Your task to perform on an android device: turn off javascript in the chrome app Image 0: 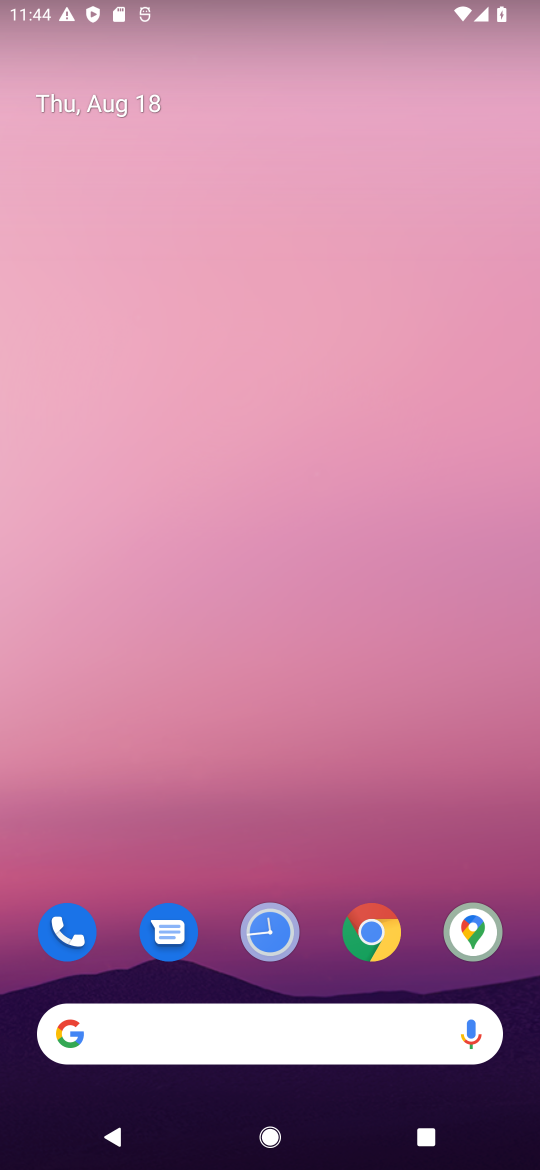
Step 0: click (361, 935)
Your task to perform on an android device: turn off javascript in the chrome app Image 1: 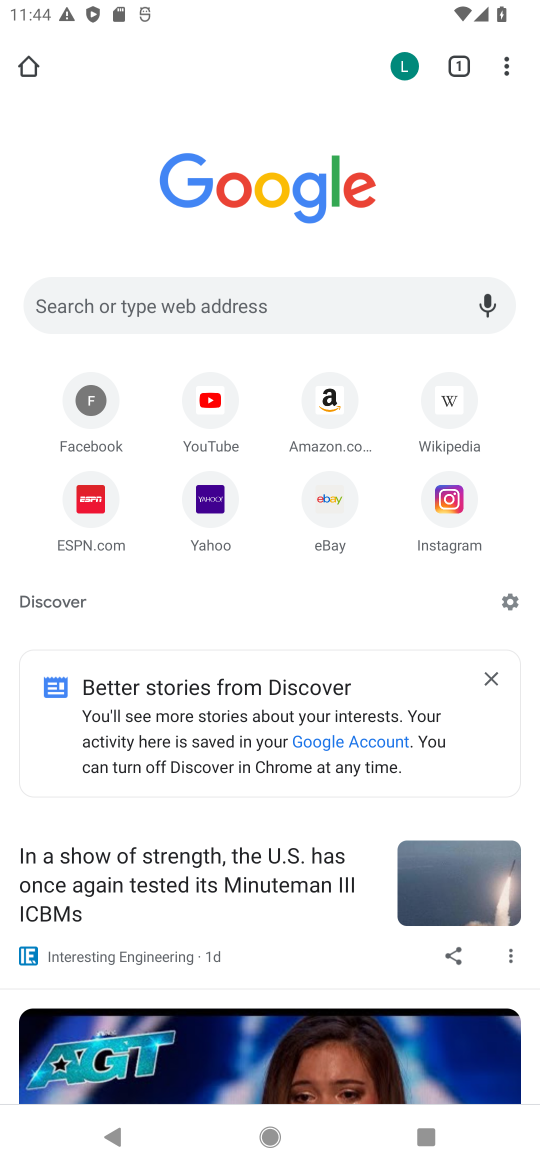
Step 1: click (513, 57)
Your task to perform on an android device: turn off javascript in the chrome app Image 2: 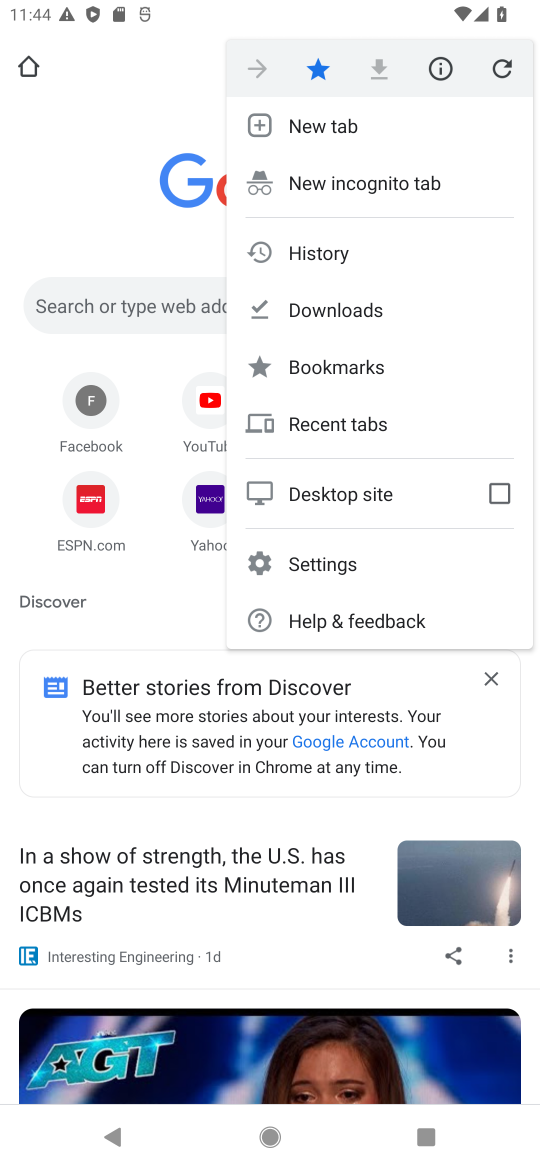
Step 2: click (297, 554)
Your task to perform on an android device: turn off javascript in the chrome app Image 3: 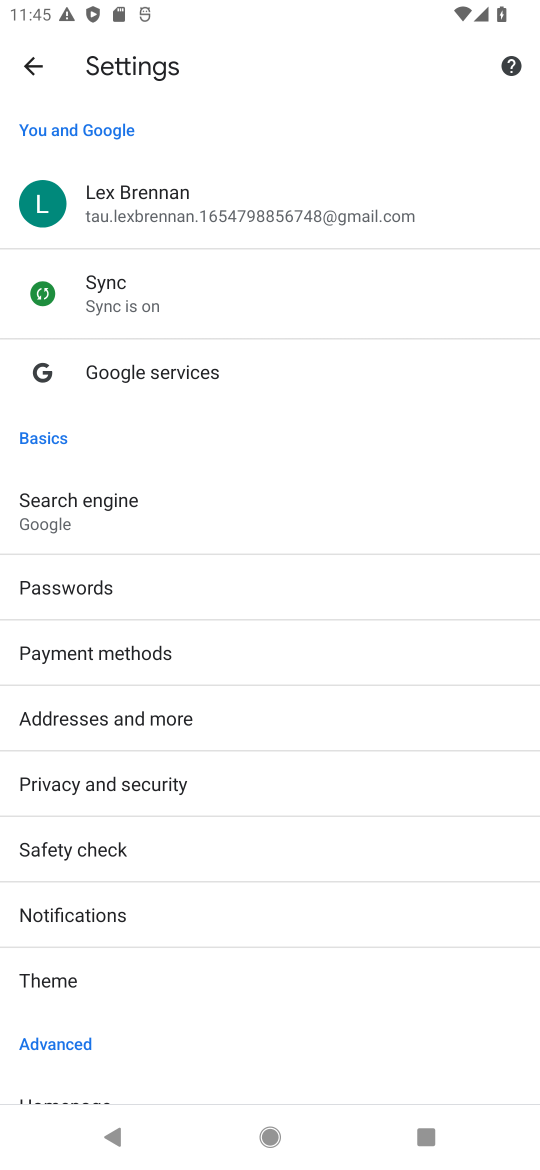
Step 3: drag from (193, 947) to (193, 685)
Your task to perform on an android device: turn off javascript in the chrome app Image 4: 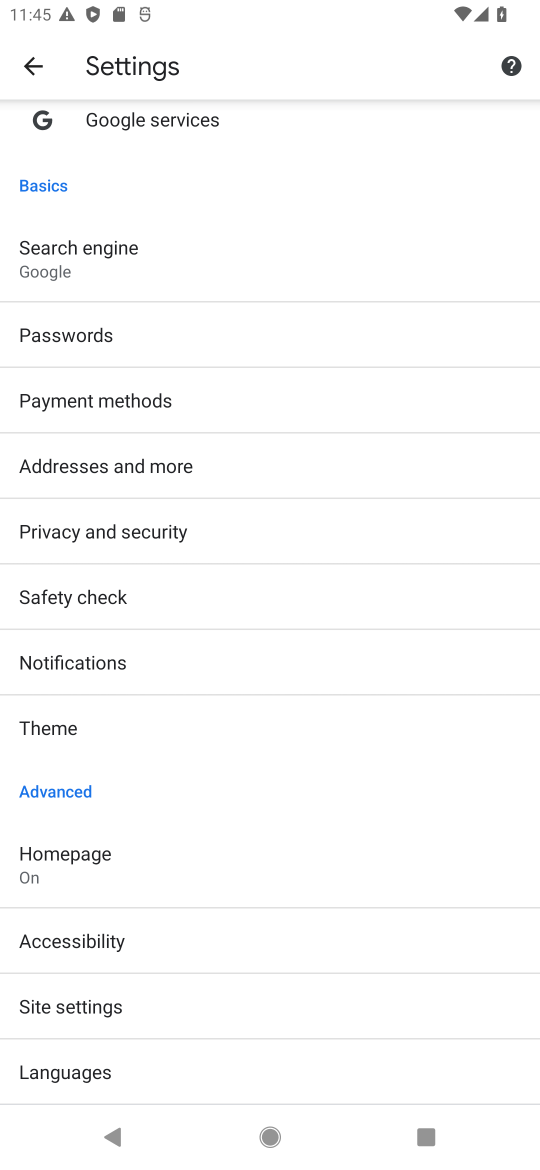
Step 4: click (78, 992)
Your task to perform on an android device: turn off javascript in the chrome app Image 5: 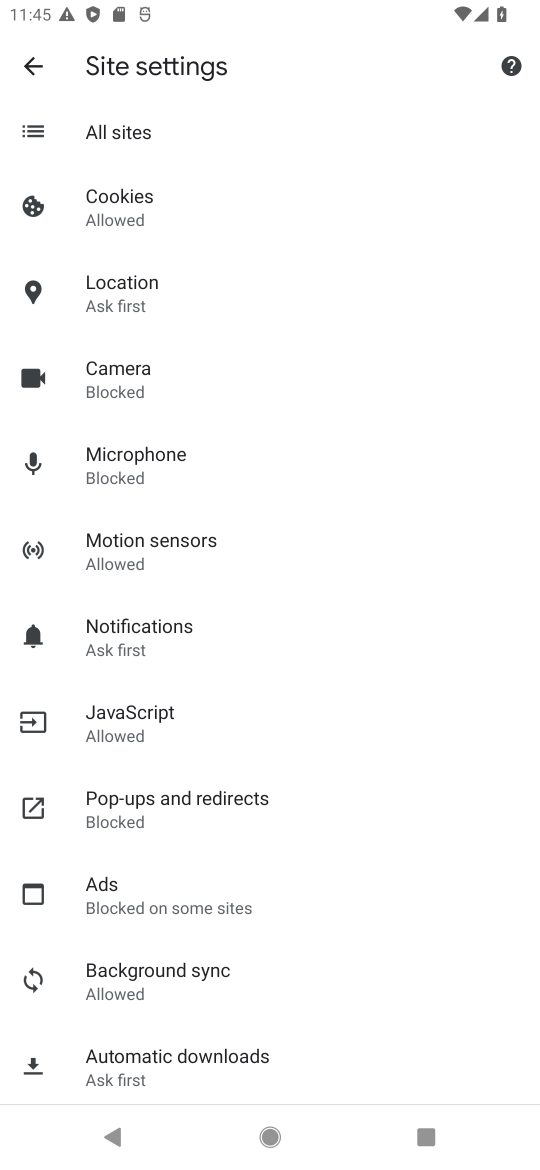
Step 5: click (120, 708)
Your task to perform on an android device: turn off javascript in the chrome app Image 6: 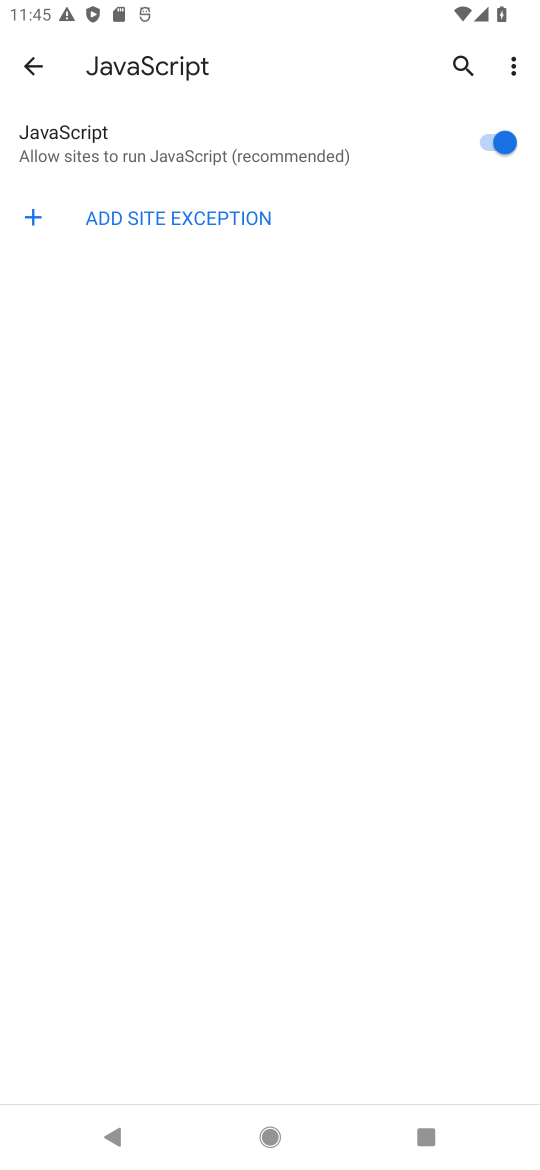
Step 6: click (504, 129)
Your task to perform on an android device: turn off javascript in the chrome app Image 7: 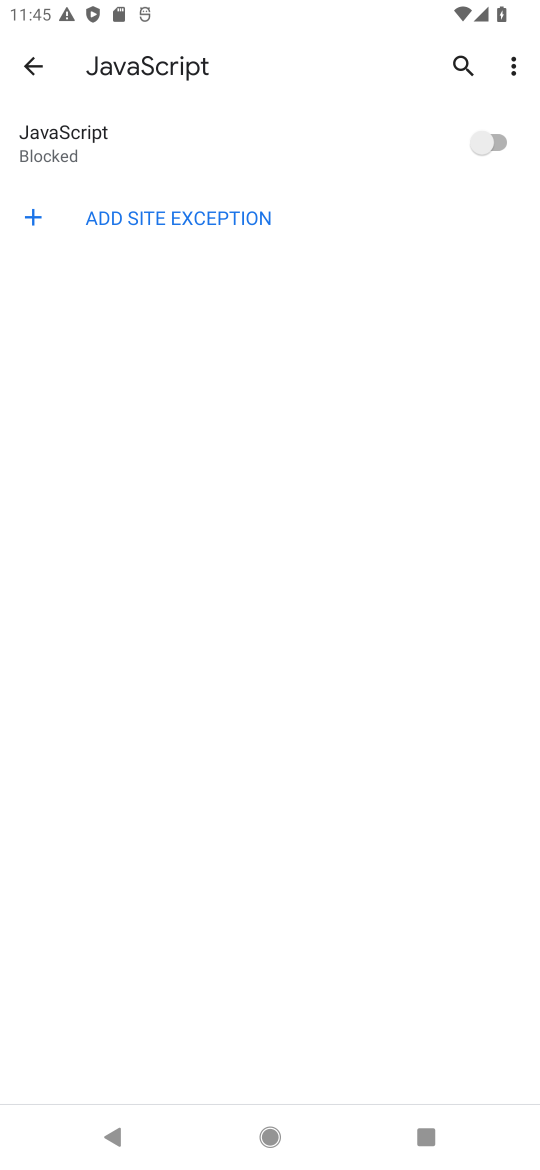
Step 7: task complete